Your task to perform on an android device: open sync settings in chrome Image 0: 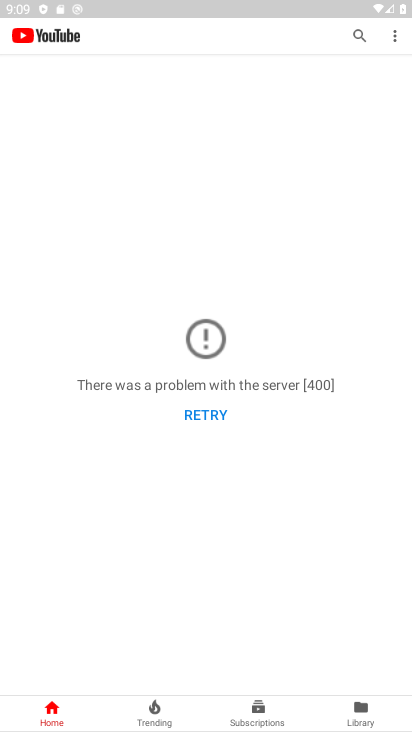
Step 0: press home button
Your task to perform on an android device: open sync settings in chrome Image 1: 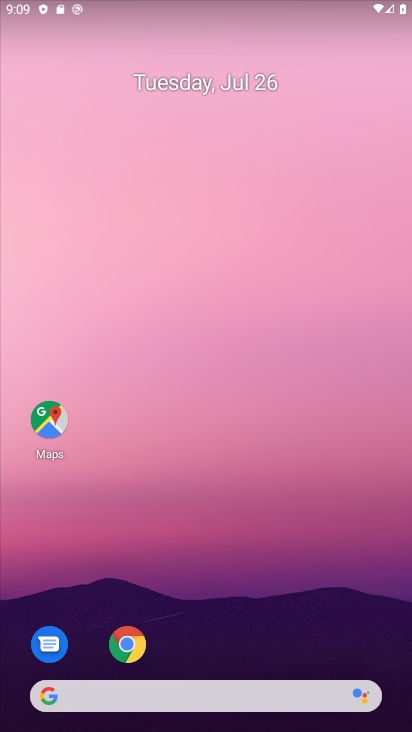
Step 1: click (122, 631)
Your task to perform on an android device: open sync settings in chrome Image 2: 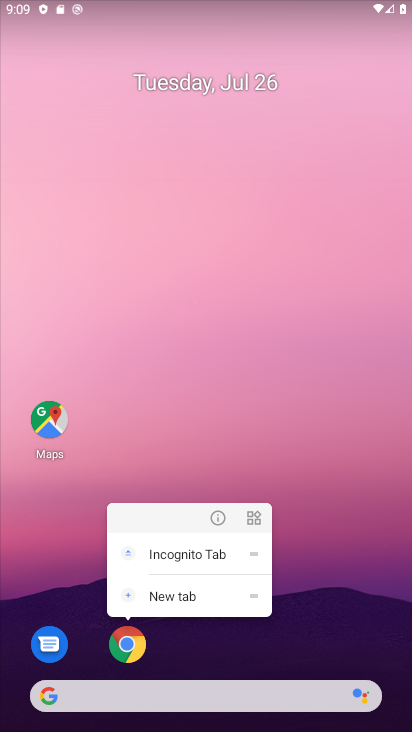
Step 2: click (128, 642)
Your task to perform on an android device: open sync settings in chrome Image 3: 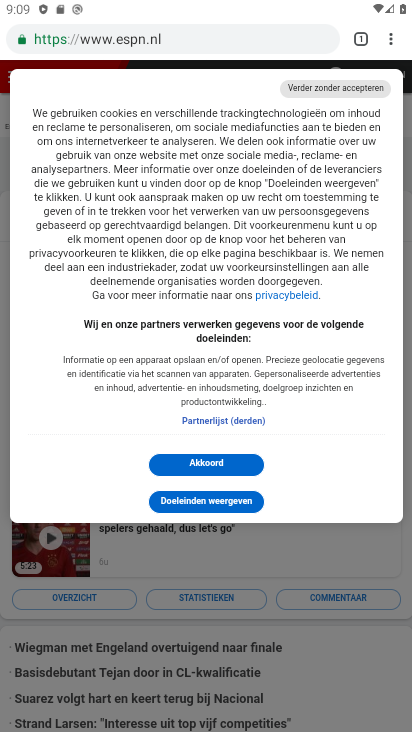
Step 3: click (388, 39)
Your task to perform on an android device: open sync settings in chrome Image 4: 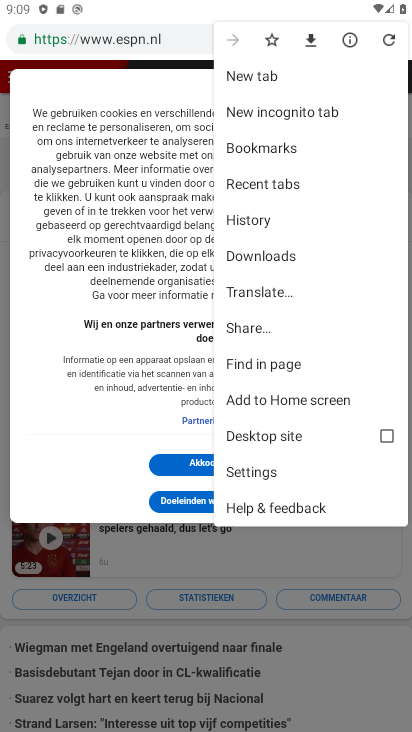
Step 4: click (271, 469)
Your task to perform on an android device: open sync settings in chrome Image 5: 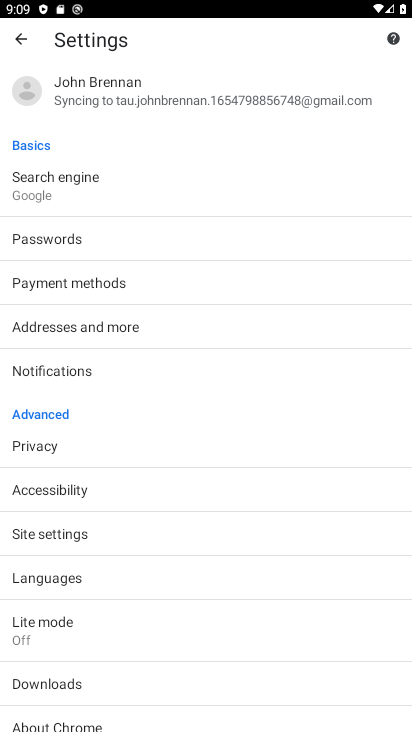
Step 5: click (184, 92)
Your task to perform on an android device: open sync settings in chrome Image 6: 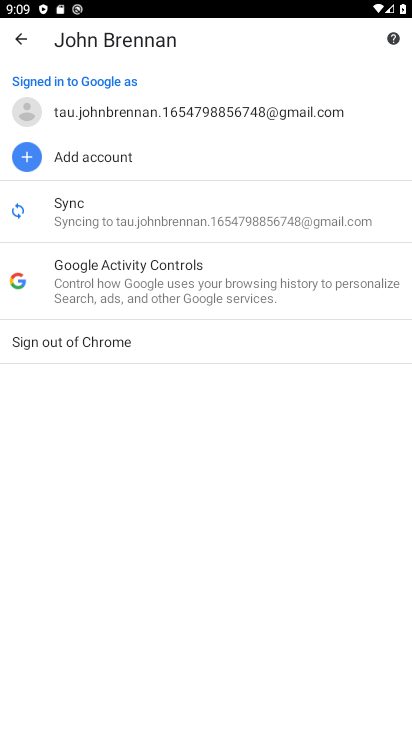
Step 6: click (72, 212)
Your task to perform on an android device: open sync settings in chrome Image 7: 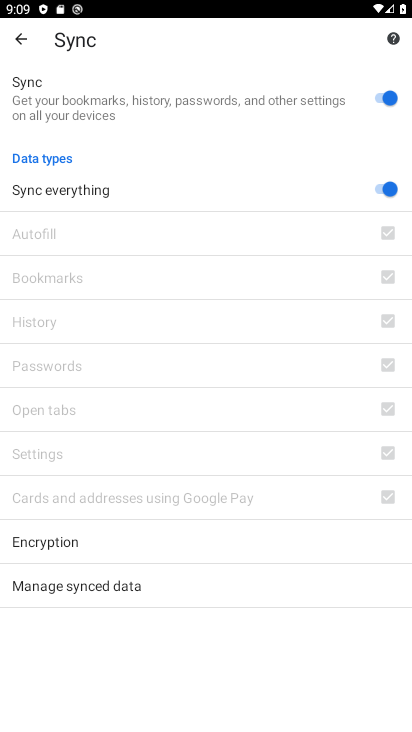
Step 7: task complete